Your task to perform on an android device: turn on location history Image 0: 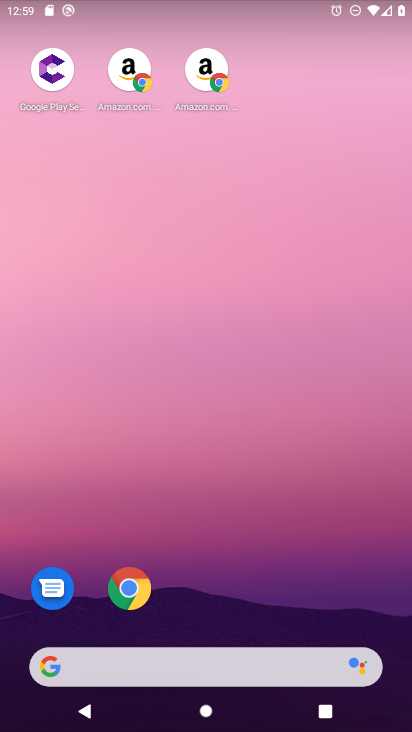
Step 0: drag from (259, 697) to (259, 184)
Your task to perform on an android device: turn on location history Image 1: 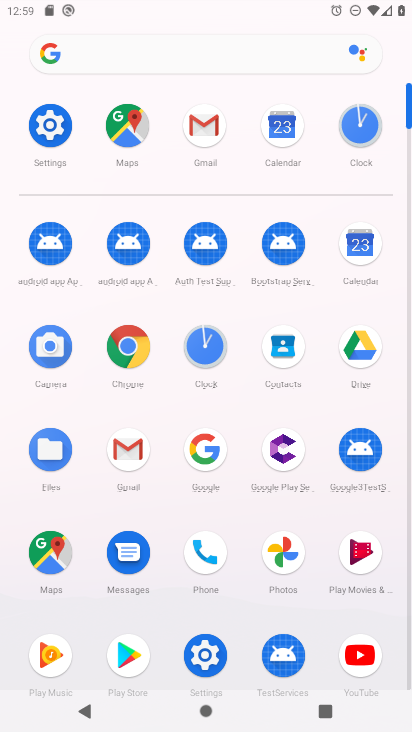
Step 1: click (52, 142)
Your task to perform on an android device: turn on location history Image 2: 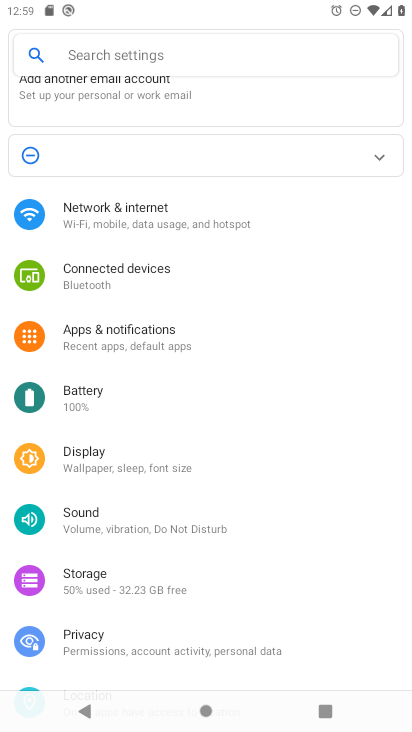
Step 2: click (189, 49)
Your task to perform on an android device: turn on location history Image 3: 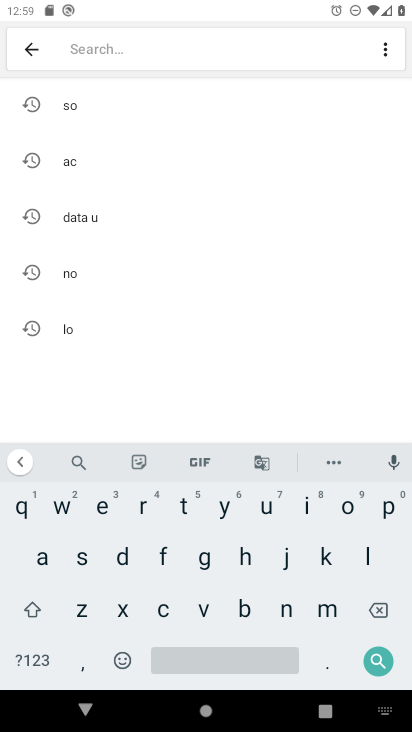
Step 3: click (88, 325)
Your task to perform on an android device: turn on location history Image 4: 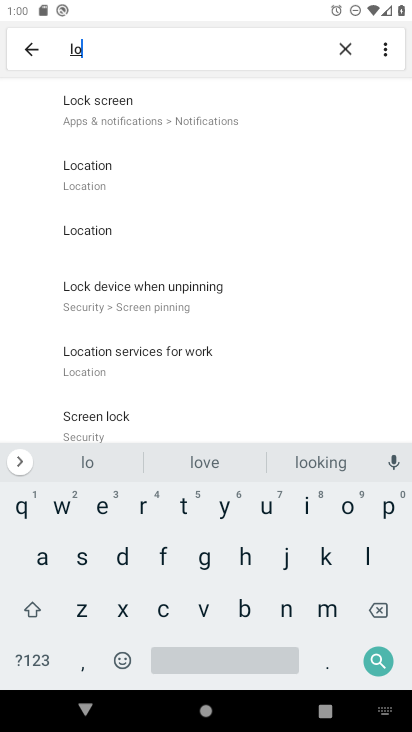
Step 4: click (140, 185)
Your task to perform on an android device: turn on location history Image 5: 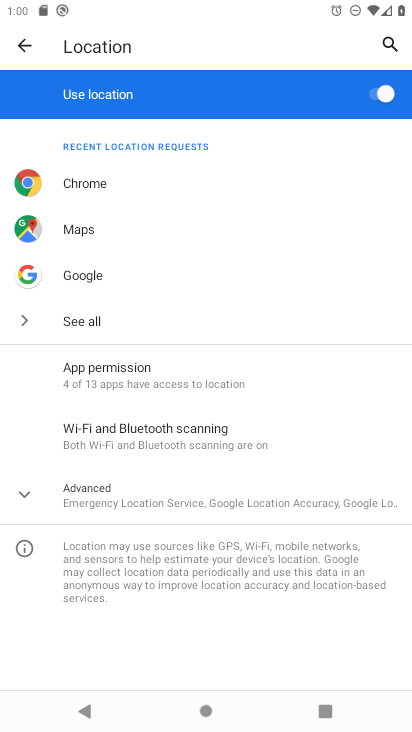
Step 5: click (47, 506)
Your task to perform on an android device: turn on location history Image 6: 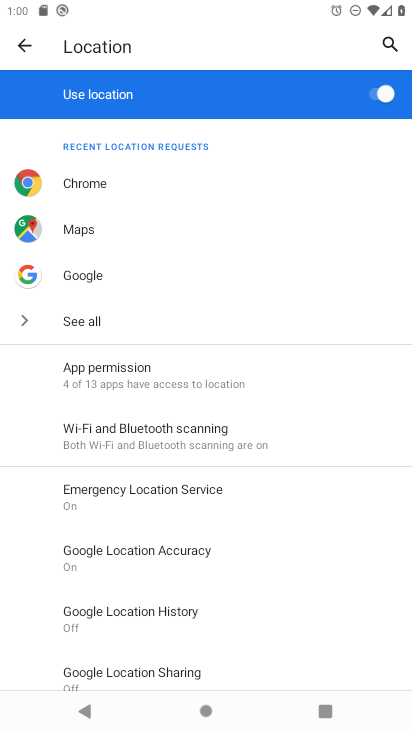
Step 6: click (173, 603)
Your task to perform on an android device: turn on location history Image 7: 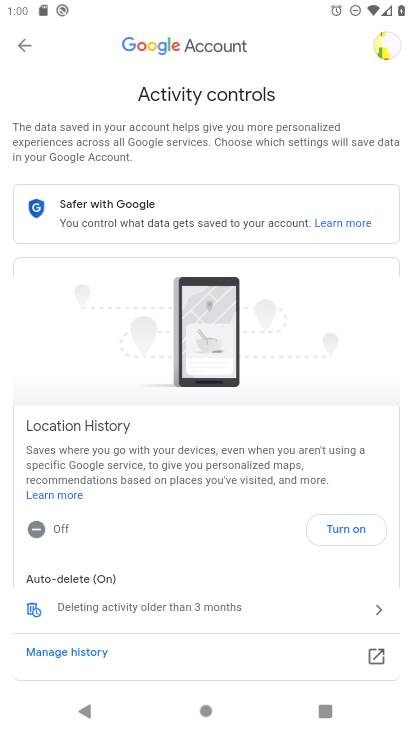
Step 7: task complete